Your task to perform on an android device: Open my contact list Image 0: 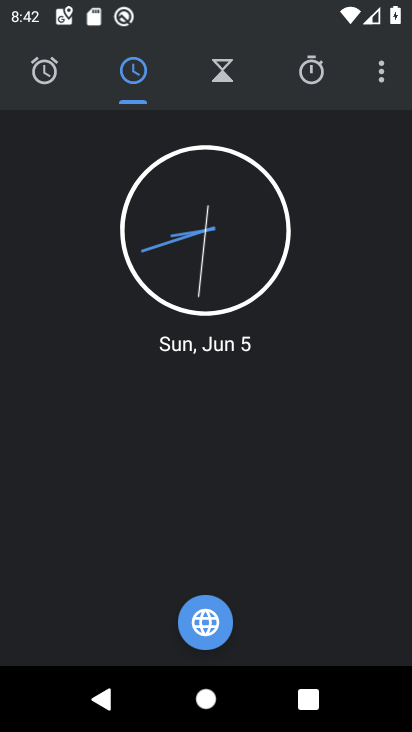
Step 0: press home button
Your task to perform on an android device: Open my contact list Image 1: 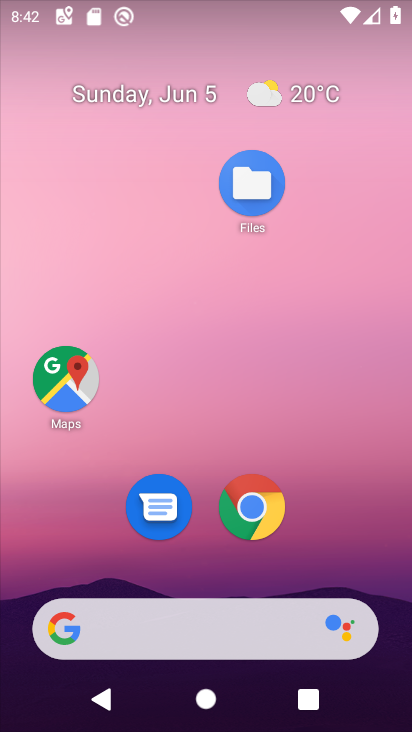
Step 1: drag from (196, 594) to (115, 116)
Your task to perform on an android device: Open my contact list Image 2: 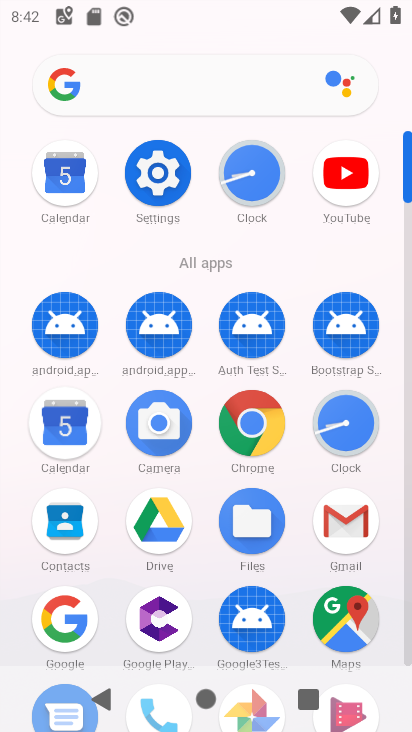
Step 2: drag from (115, 569) to (95, 208)
Your task to perform on an android device: Open my contact list Image 3: 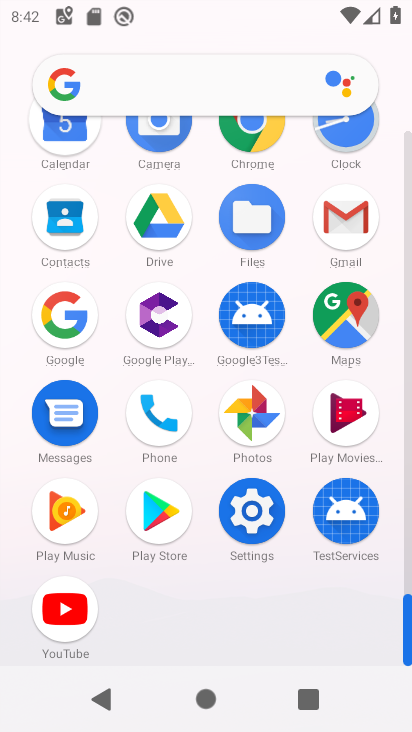
Step 3: click (169, 409)
Your task to perform on an android device: Open my contact list Image 4: 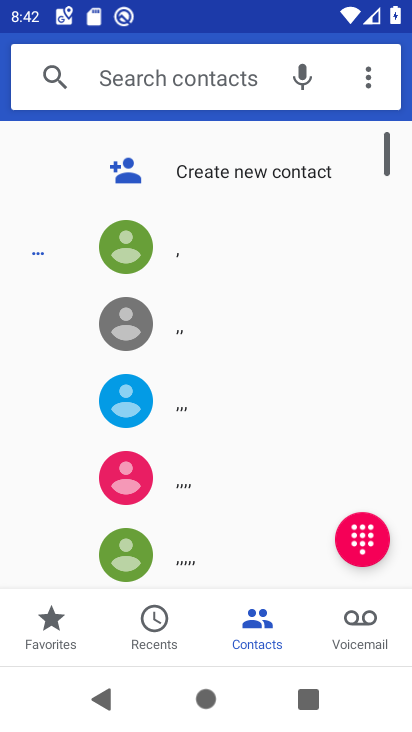
Step 4: task complete